Your task to perform on an android device: Go to Google maps Image 0: 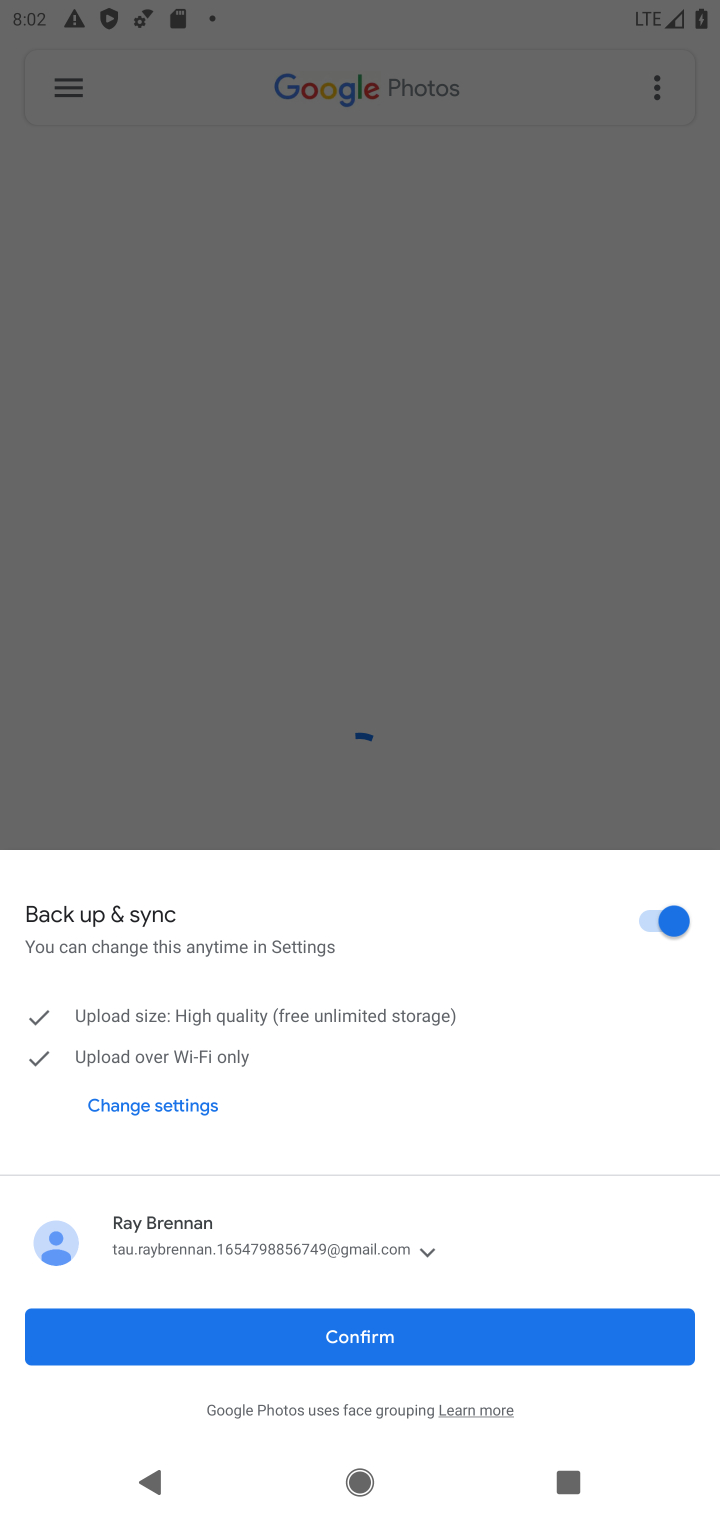
Step 0: press home button
Your task to perform on an android device: Go to Google maps Image 1: 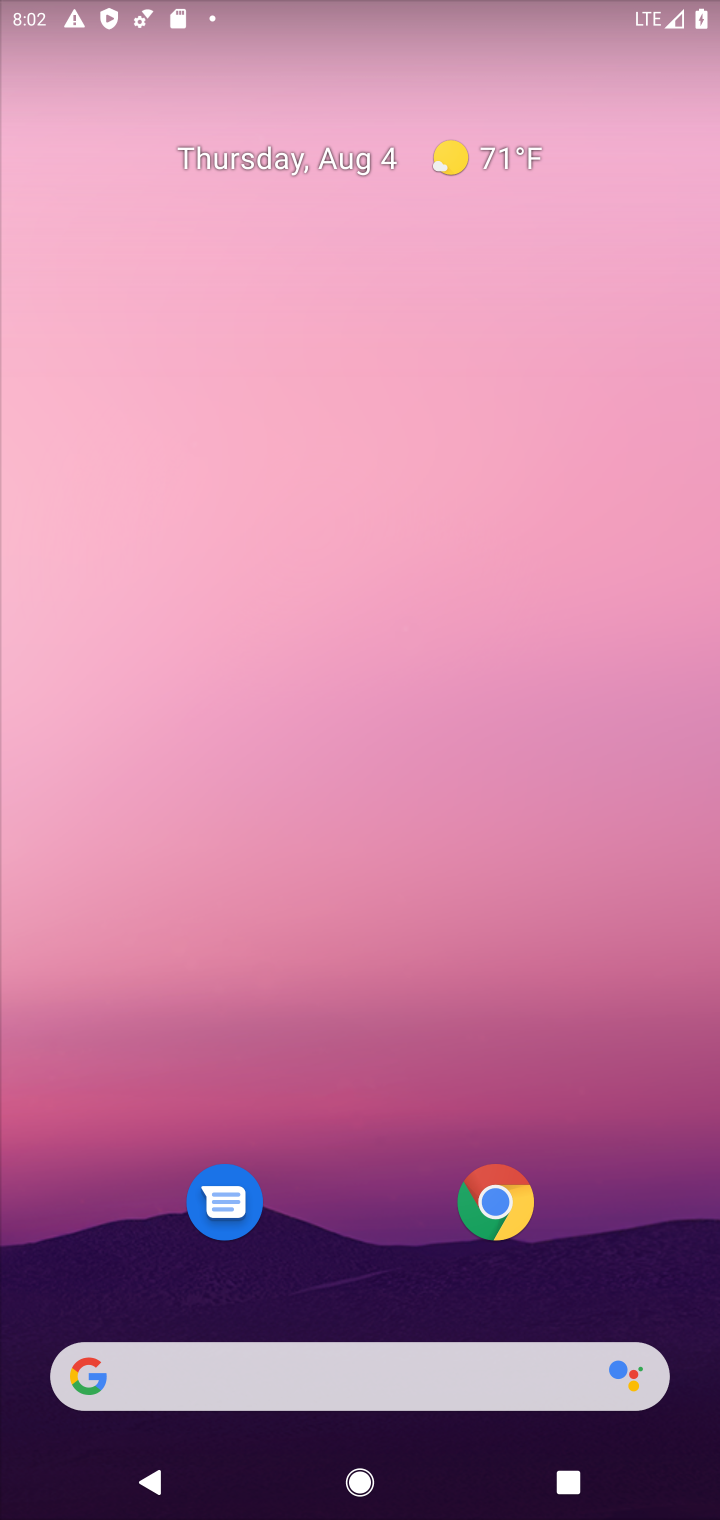
Step 1: drag from (371, 1132) to (355, 402)
Your task to perform on an android device: Go to Google maps Image 2: 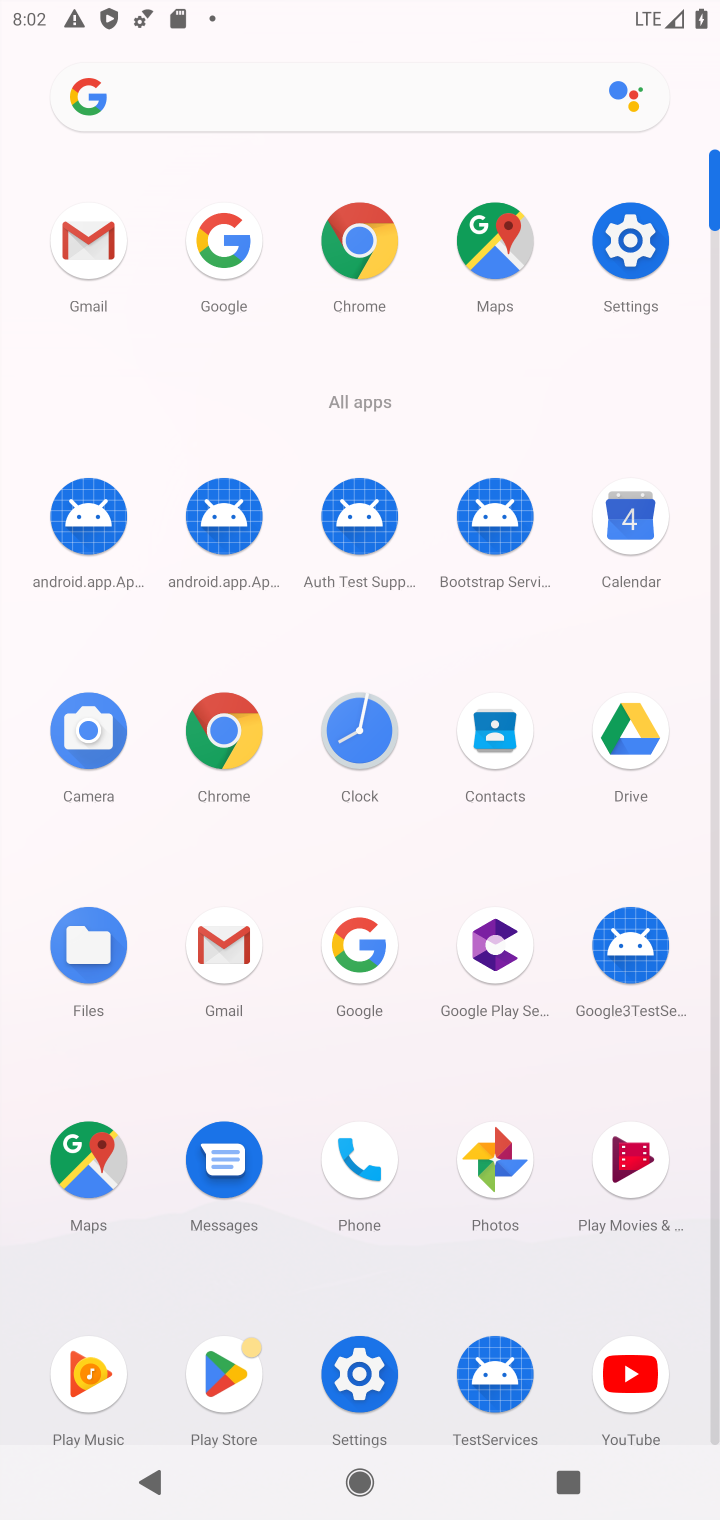
Step 2: click (89, 1170)
Your task to perform on an android device: Go to Google maps Image 3: 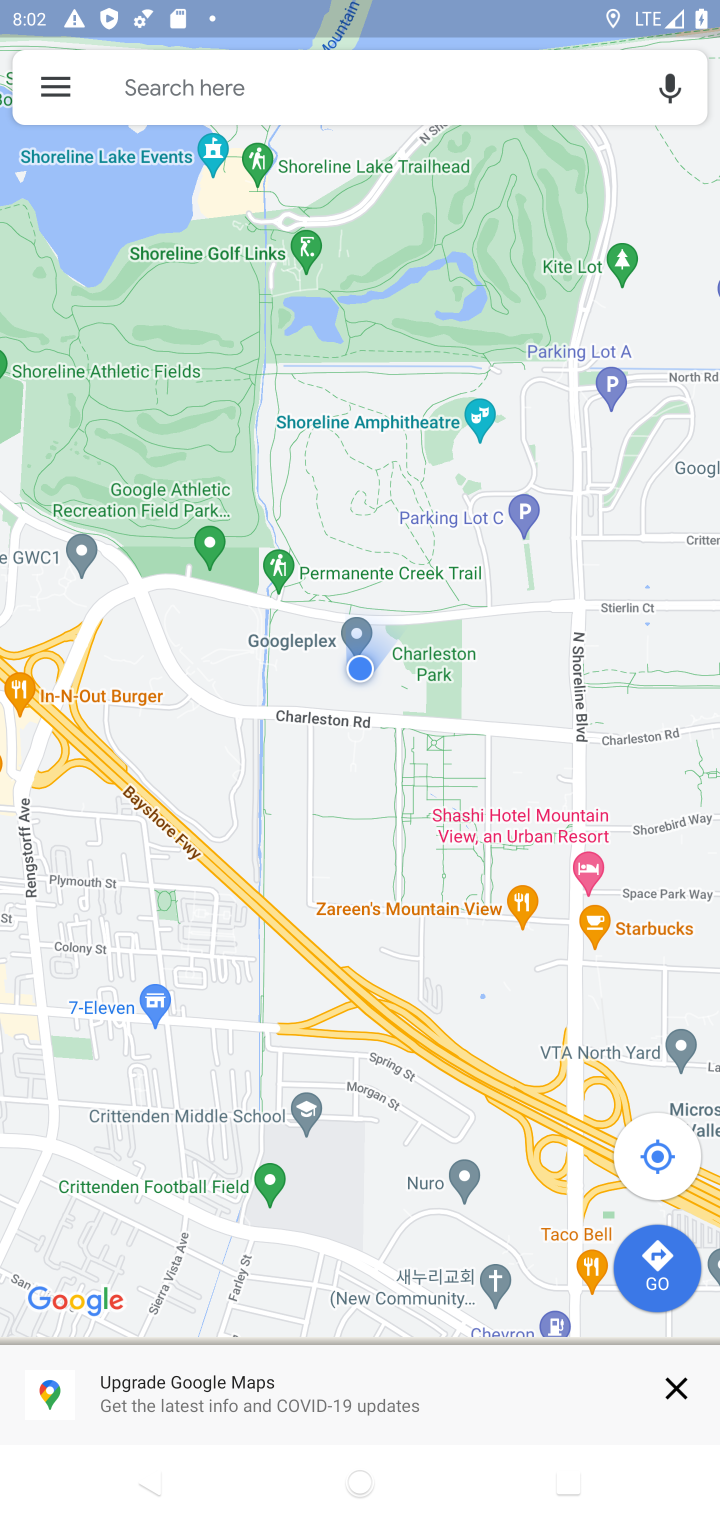
Step 3: task complete